Your task to perform on an android device: change the clock display to show seconds Image 0: 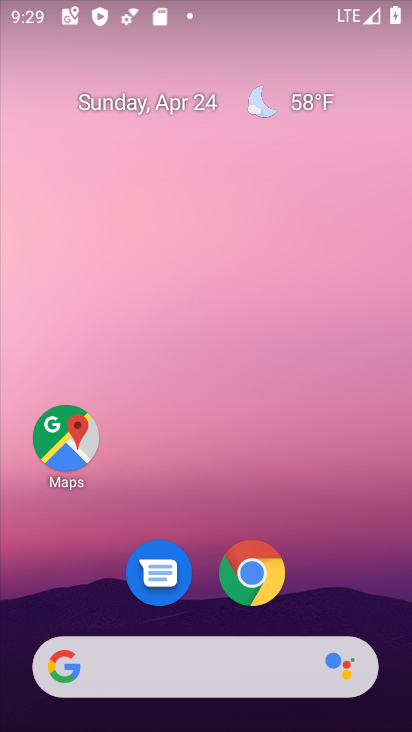
Step 0: drag from (313, 561) to (358, 37)
Your task to perform on an android device: change the clock display to show seconds Image 1: 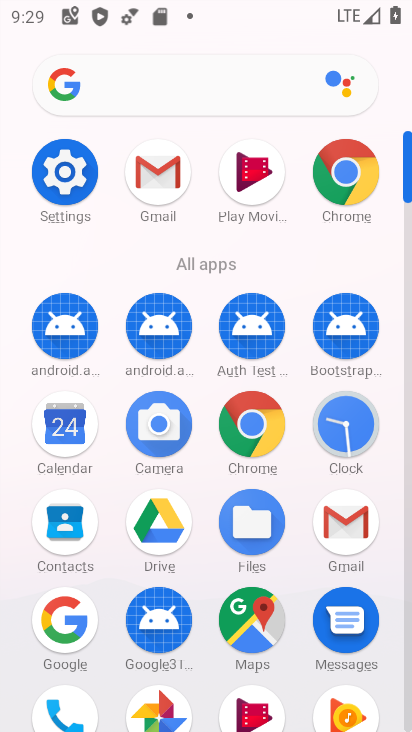
Step 1: click (350, 435)
Your task to perform on an android device: change the clock display to show seconds Image 2: 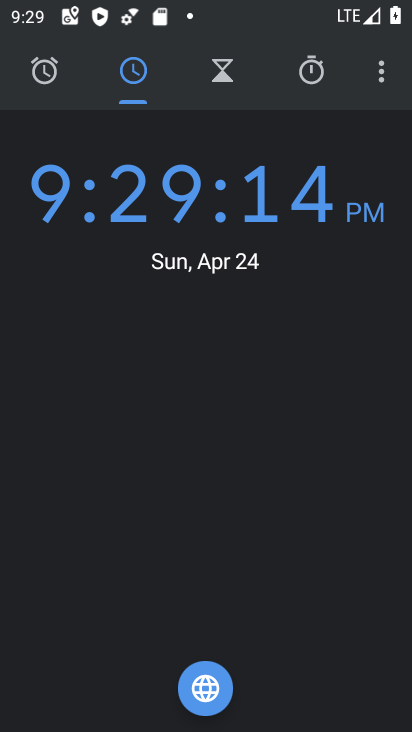
Step 2: click (382, 65)
Your task to perform on an android device: change the clock display to show seconds Image 3: 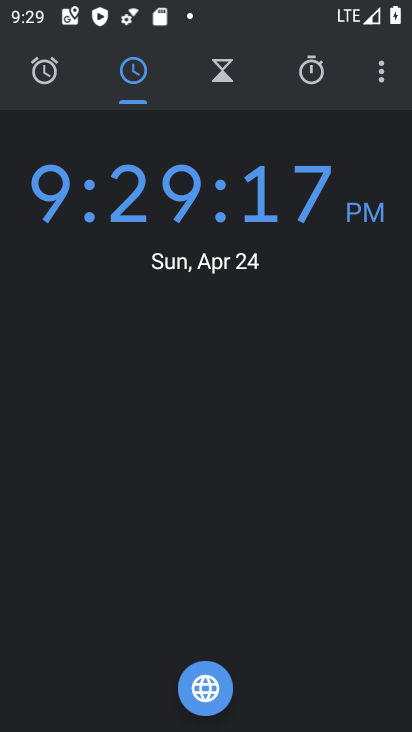
Step 3: click (380, 79)
Your task to perform on an android device: change the clock display to show seconds Image 4: 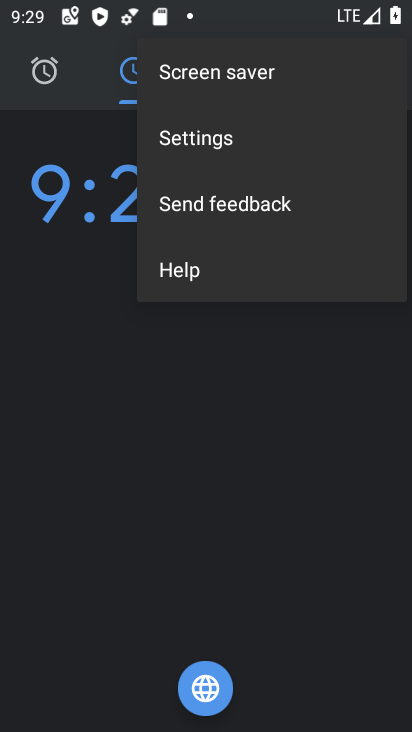
Step 4: click (212, 147)
Your task to perform on an android device: change the clock display to show seconds Image 5: 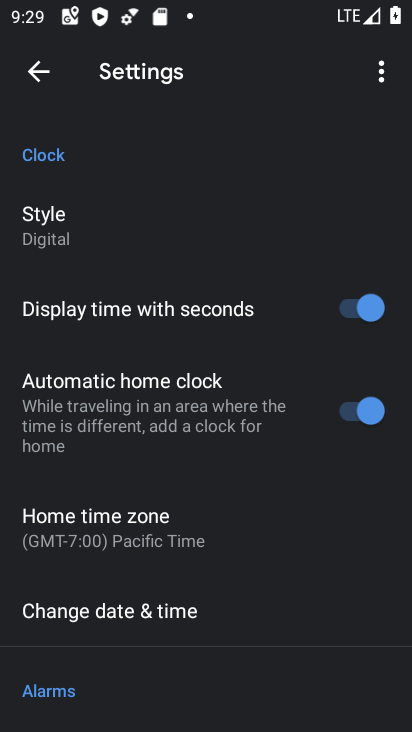
Step 5: task complete